Your task to perform on an android device: allow cookies in the chrome app Image 0: 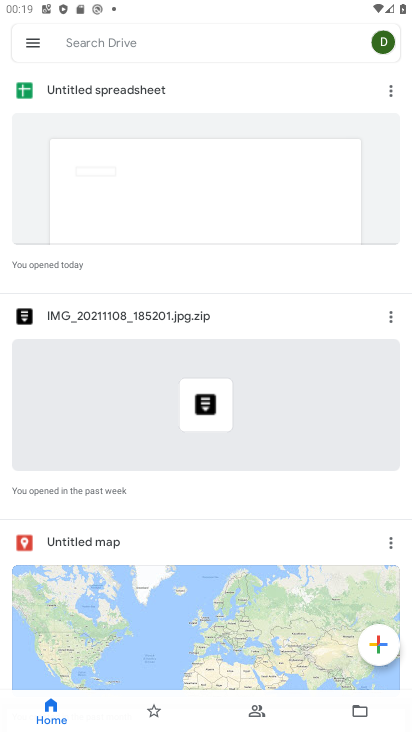
Step 0: press home button
Your task to perform on an android device: allow cookies in the chrome app Image 1: 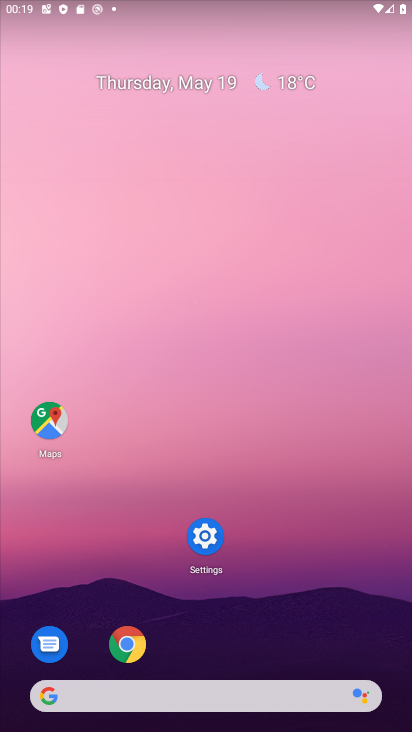
Step 1: click (123, 645)
Your task to perform on an android device: allow cookies in the chrome app Image 2: 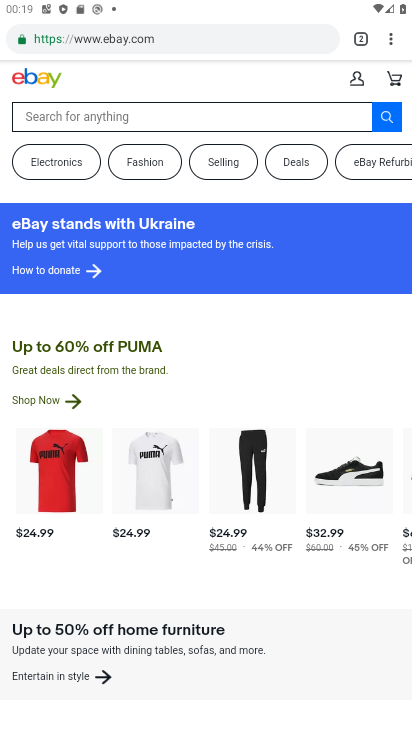
Step 2: drag from (394, 33) to (269, 467)
Your task to perform on an android device: allow cookies in the chrome app Image 3: 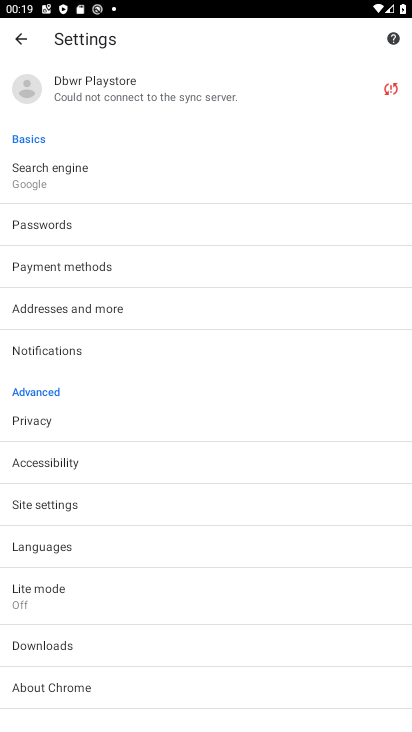
Step 3: click (65, 491)
Your task to perform on an android device: allow cookies in the chrome app Image 4: 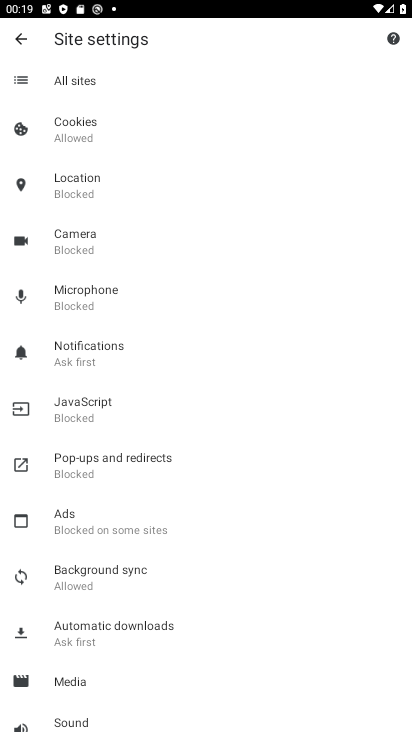
Step 4: click (102, 127)
Your task to perform on an android device: allow cookies in the chrome app Image 5: 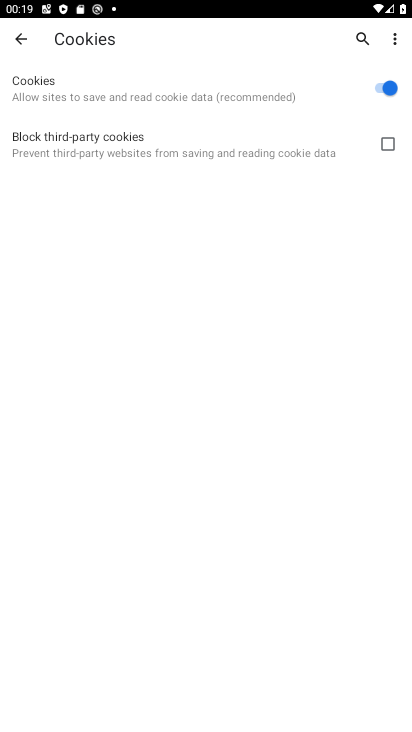
Step 5: task complete